Your task to perform on an android device: Go to Reddit.com Image 0: 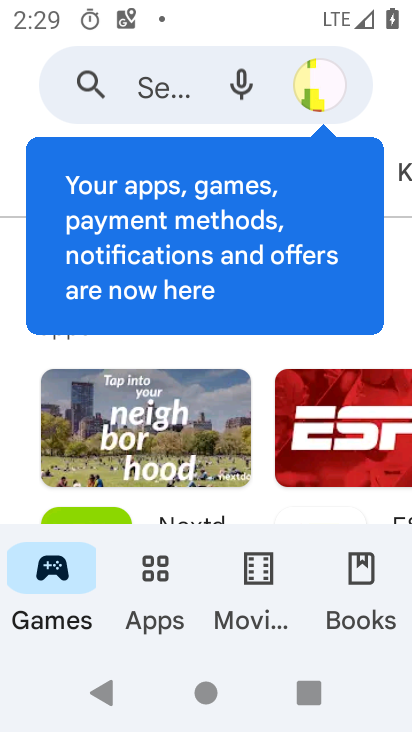
Step 0: press home button
Your task to perform on an android device: Go to Reddit.com Image 1: 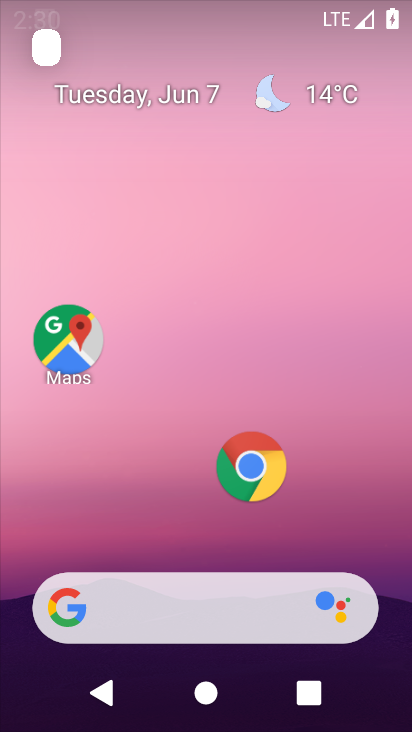
Step 1: click (261, 481)
Your task to perform on an android device: Go to Reddit.com Image 2: 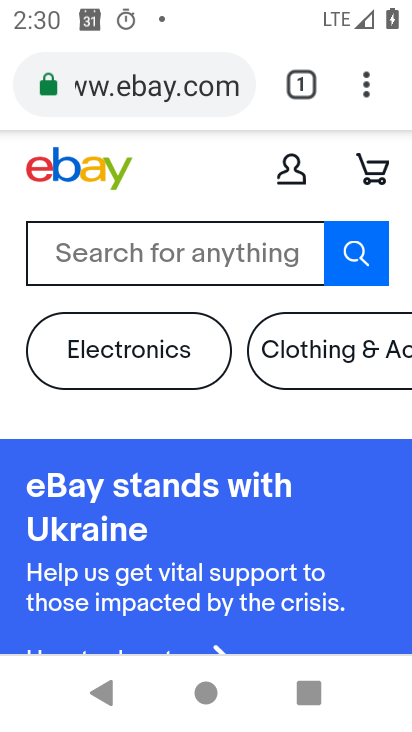
Step 2: click (309, 90)
Your task to perform on an android device: Go to Reddit.com Image 3: 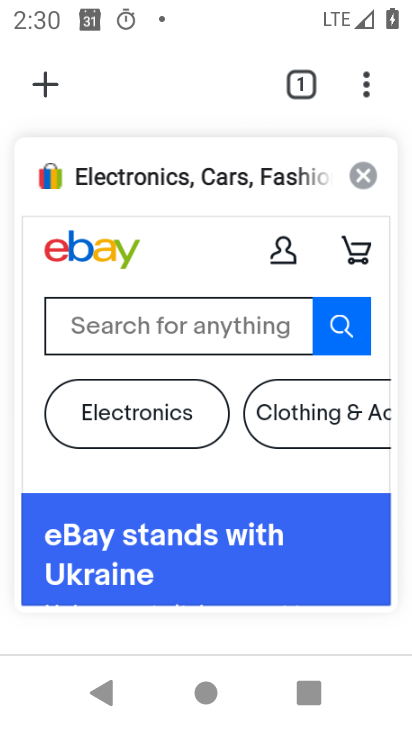
Step 3: click (366, 170)
Your task to perform on an android device: Go to Reddit.com Image 4: 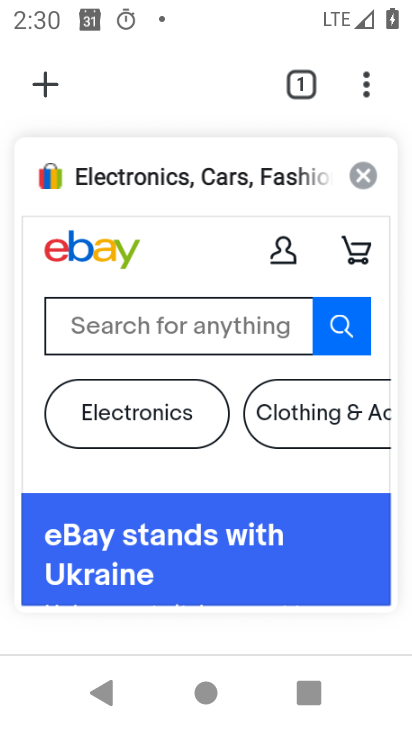
Step 4: click (40, 87)
Your task to perform on an android device: Go to Reddit.com Image 5: 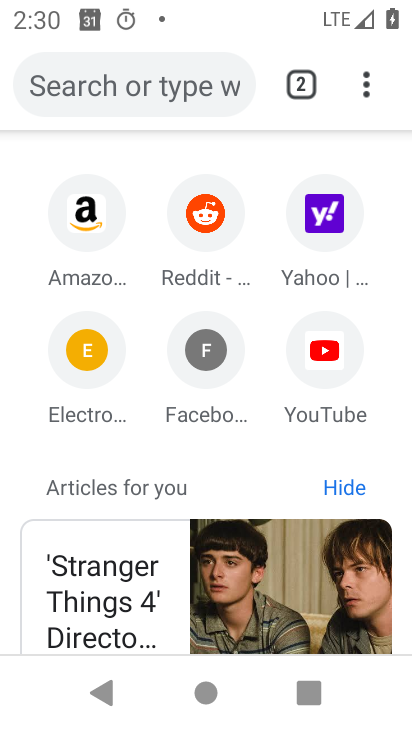
Step 5: click (197, 217)
Your task to perform on an android device: Go to Reddit.com Image 6: 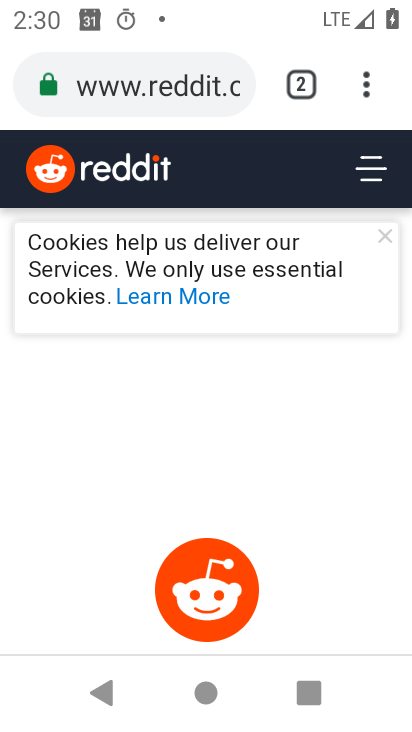
Step 6: task complete